Your task to perform on an android device: Open Wikipedia Image 0: 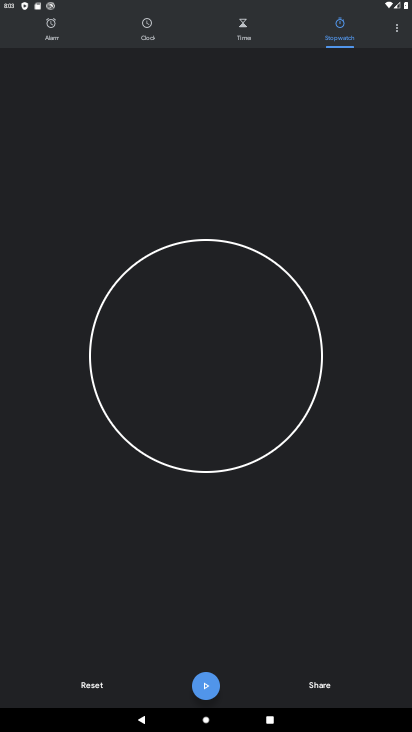
Step 0: press home button
Your task to perform on an android device: Open Wikipedia Image 1: 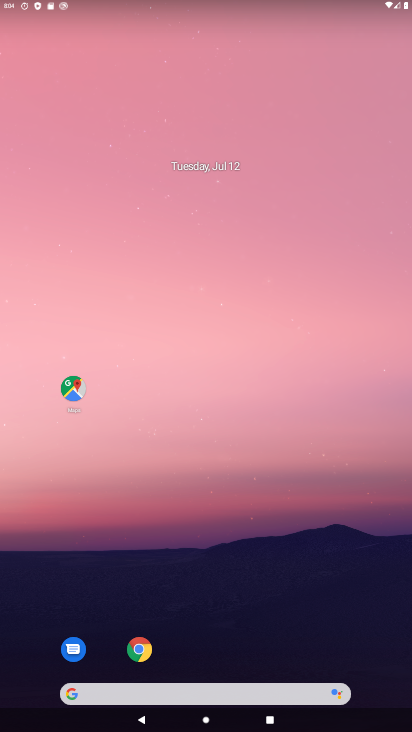
Step 1: drag from (322, 504) to (197, 23)
Your task to perform on an android device: Open Wikipedia Image 2: 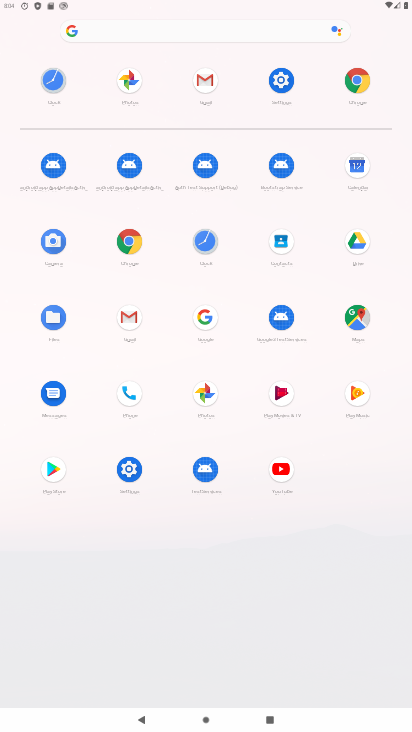
Step 2: click (126, 233)
Your task to perform on an android device: Open Wikipedia Image 3: 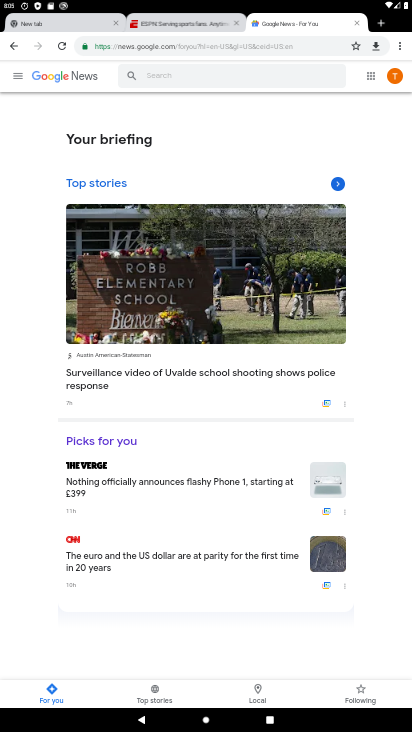
Step 3: click (209, 39)
Your task to perform on an android device: Open Wikipedia Image 4: 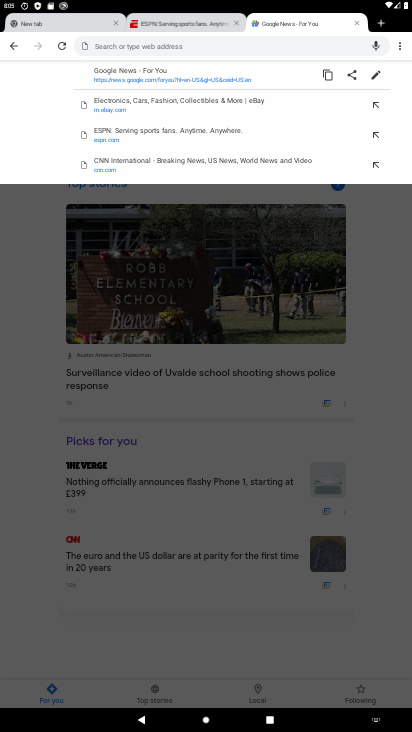
Step 4: type "wikipedia"
Your task to perform on an android device: Open Wikipedia Image 5: 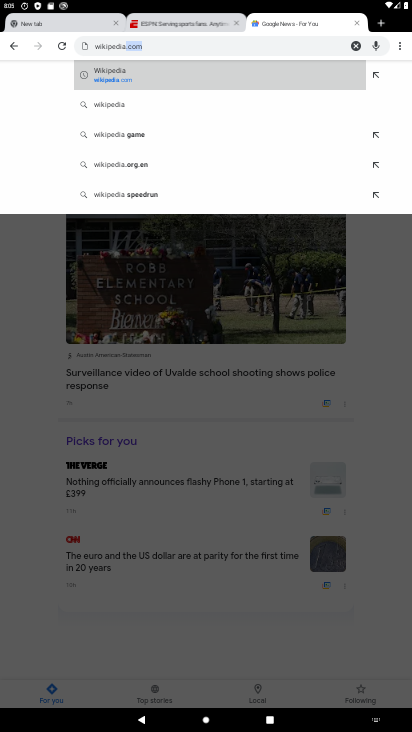
Step 5: click (119, 78)
Your task to perform on an android device: Open Wikipedia Image 6: 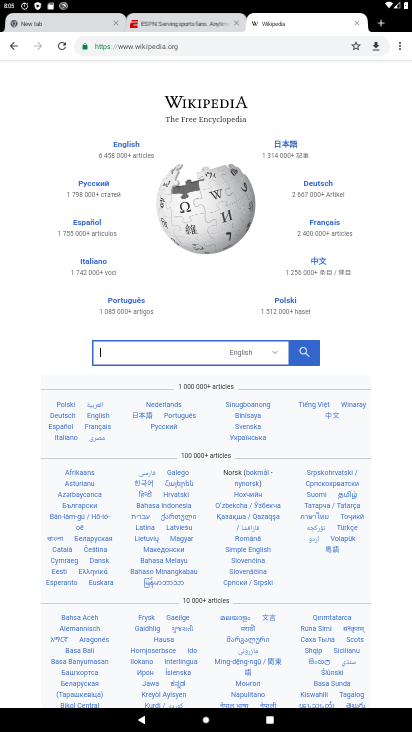
Step 6: task complete